Your task to perform on an android device: remove spam from my inbox in the gmail app Image 0: 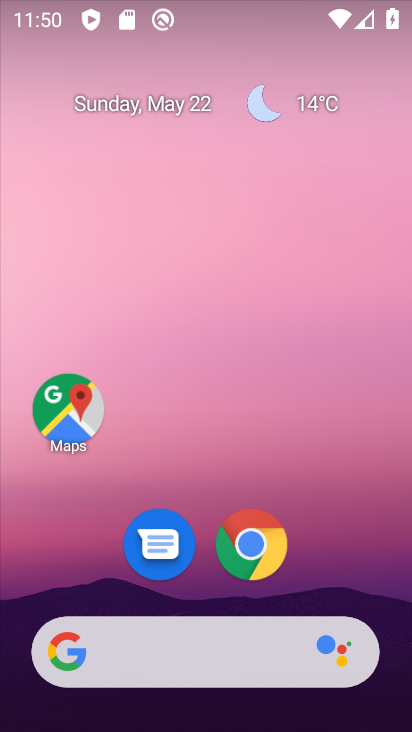
Step 0: drag from (333, 549) to (278, 143)
Your task to perform on an android device: remove spam from my inbox in the gmail app Image 1: 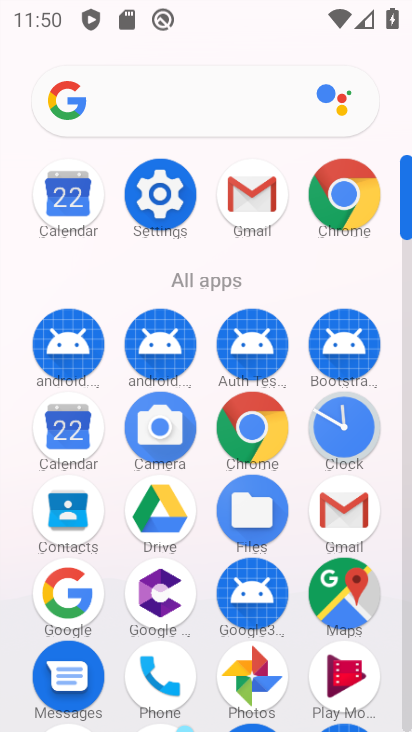
Step 1: click (241, 206)
Your task to perform on an android device: remove spam from my inbox in the gmail app Image 2: 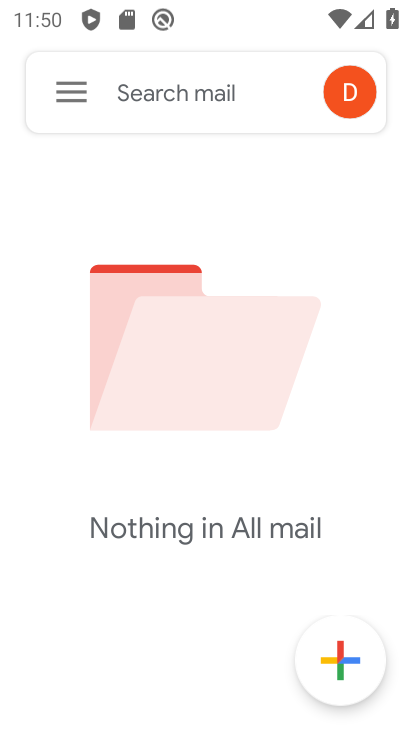
Step 2: click (49, 89)
Your task to perform on an android device: remove spam from my inbox in the gmail app Image 3: 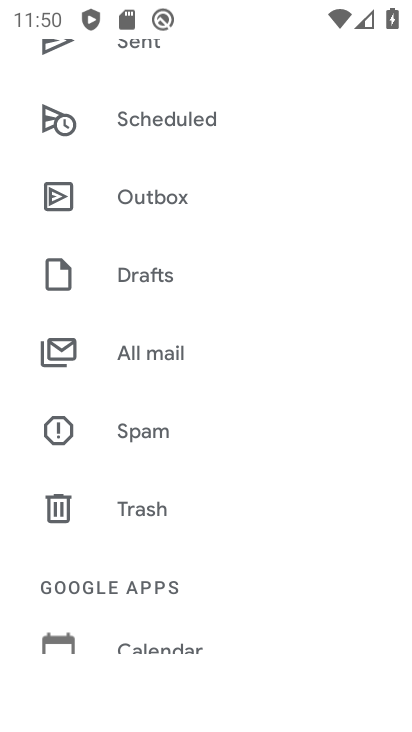
Step 3: drag from (175, 150) to (181, 673)
Your task to perform on an android device: remove spam from my inbox in the gmail app Image 4: 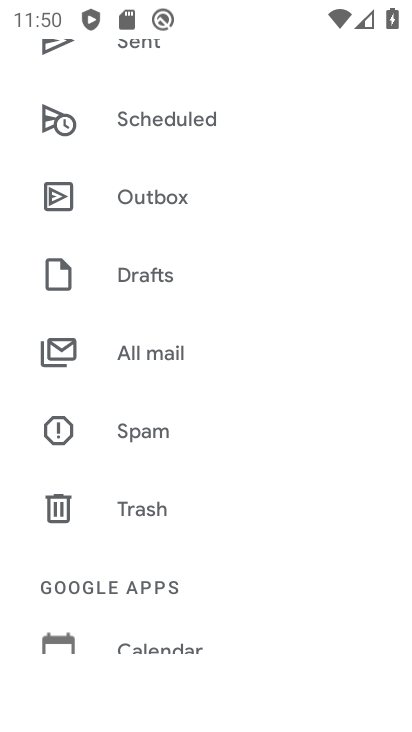
Step 4: drag from (99, 174) to (182, 682)
Your task to perform on an android device: remove spam from my inbox in the gmail app Image 5: 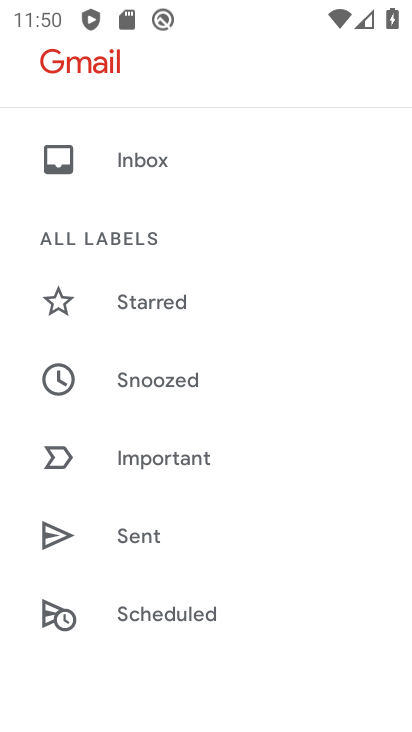
Step 5: drag from (166, 536) to (211, 160)
Your task to perform on an android device: remove spam from my inbox in the gmail app Image 6: 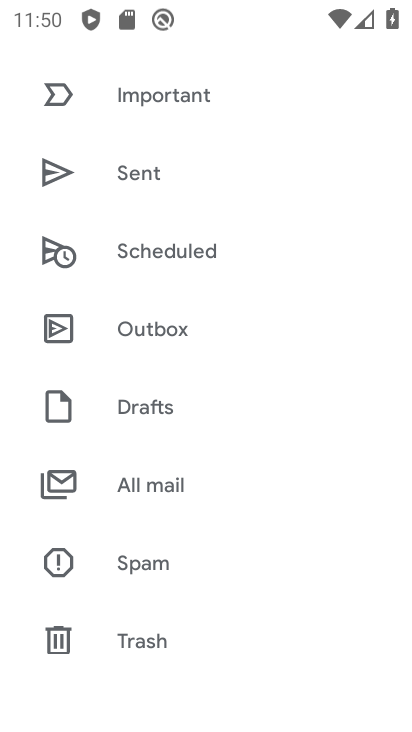
Step 6: click (139, 542)
Your task to perform on an android device: remove spam from my inbox in the gmail app Image 7: 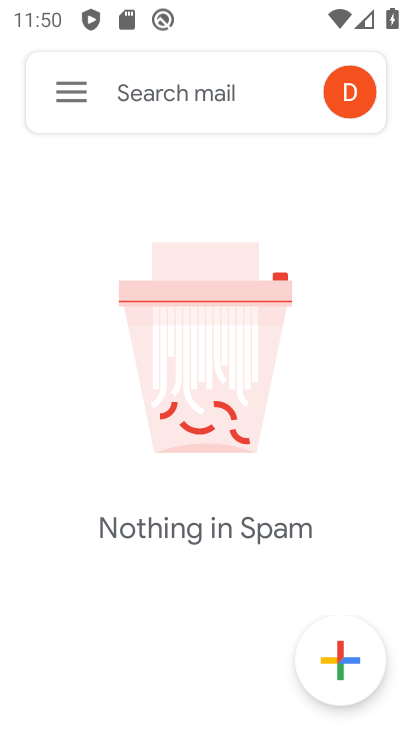
Step 7: click (66, 81)
Your task to perform on an android device: remove spam from my inbox in the gmail app Image 8: 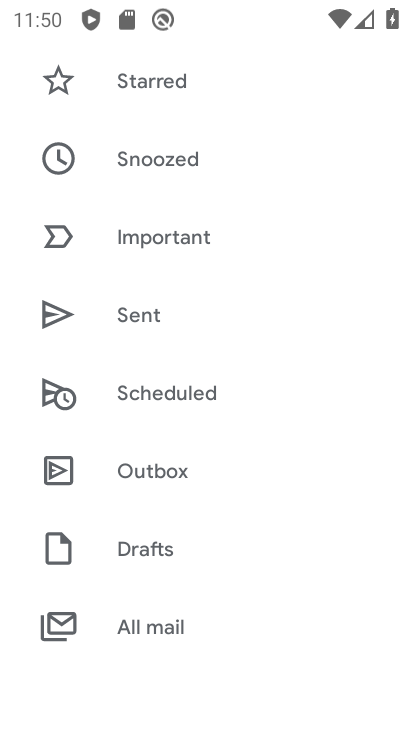
Step 8: drag from (176, 131) to (176, 640)
Your task to perform on an android device: remove spam from my inbox in the gmail app Image 9: 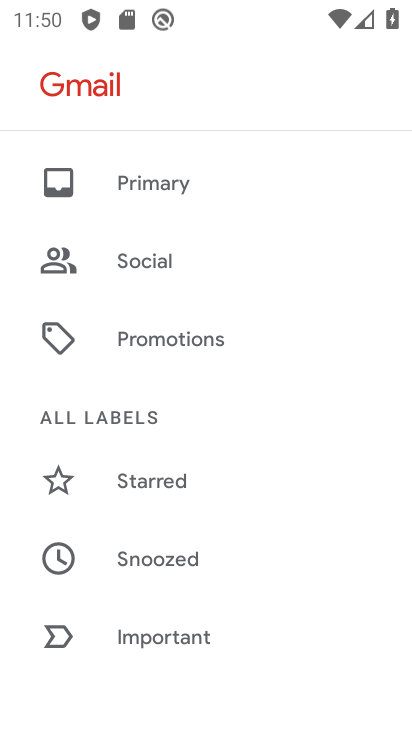
Step 9: drag from (197, 362) to (225, 627)
Your task to perform on an android device: remove spam from my inbox in the gmail app Image 10: 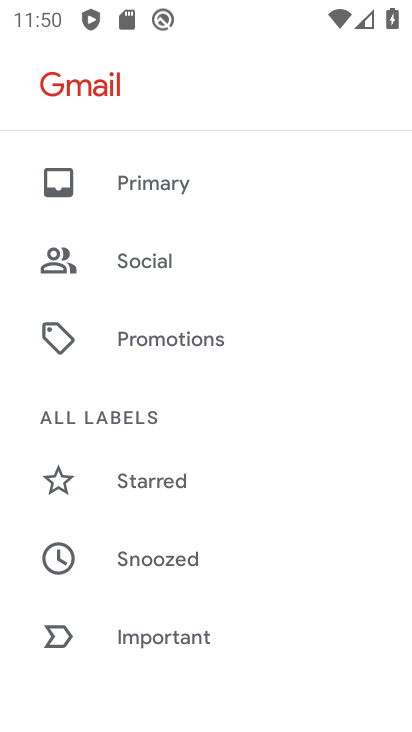
Step 10: click (155, 179)
Your task to perform on an android device: remove spam from my inbox in the gmail app Image 11: 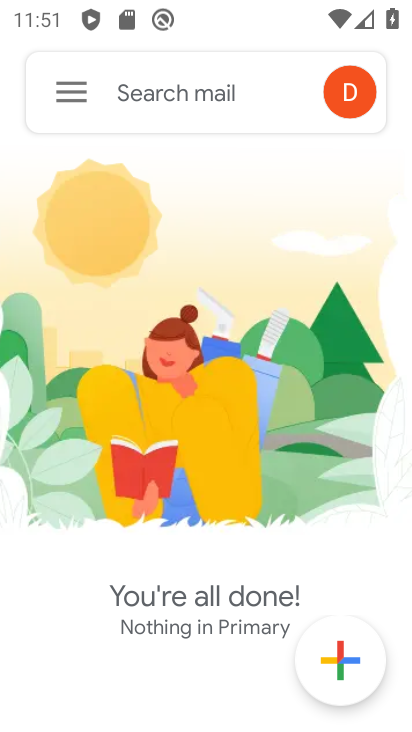
Step 11: task complete